Your task to perform on an android device: Open calendar and show me the second week of next month Image 0: 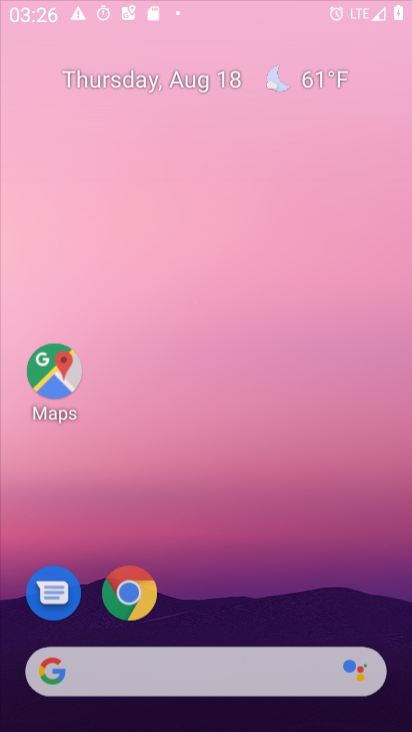
Step 0: press home button
Your task to perform on an android device: Open calendar and show me the second week of next month Image 1: 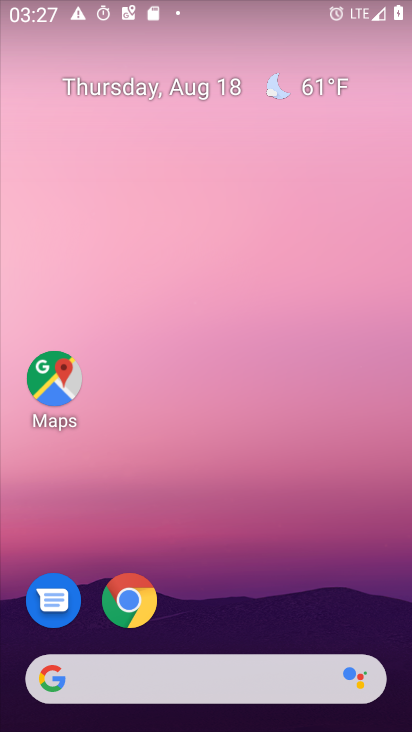
Step 1: drag from (228, 630) to (332, 0)
Your task to perform on an android device: Open calendar and show me the second week of next month Image 2: 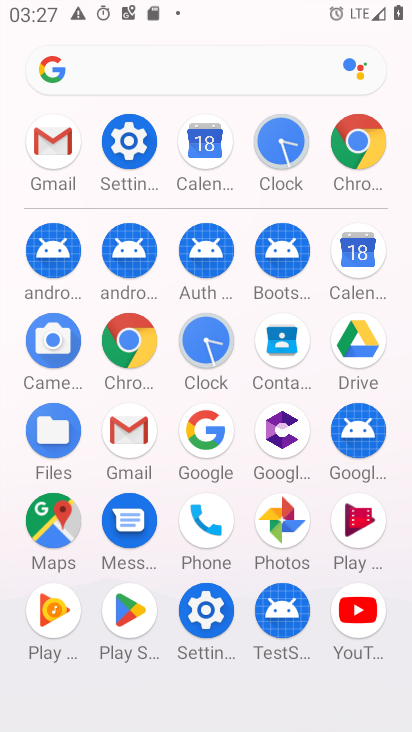
Step 2: click (346, 254)
Your task to perform on an android device: Open calendar and show me the second week of next month Image 3: 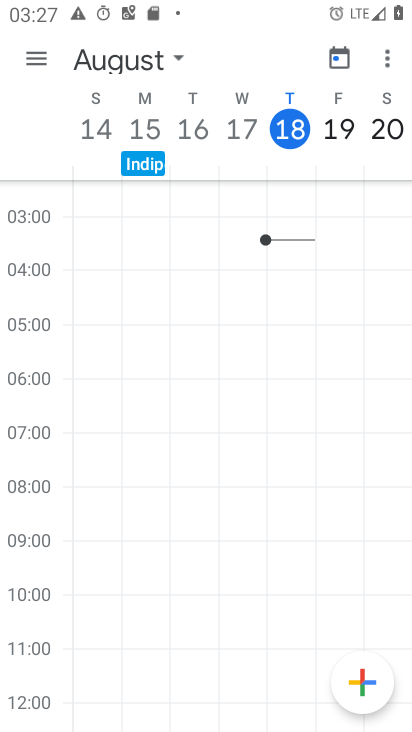
Step 3: click (184, 62)
Your task to perform on an android device: Open calendar and show me the second week of next month Image 4: 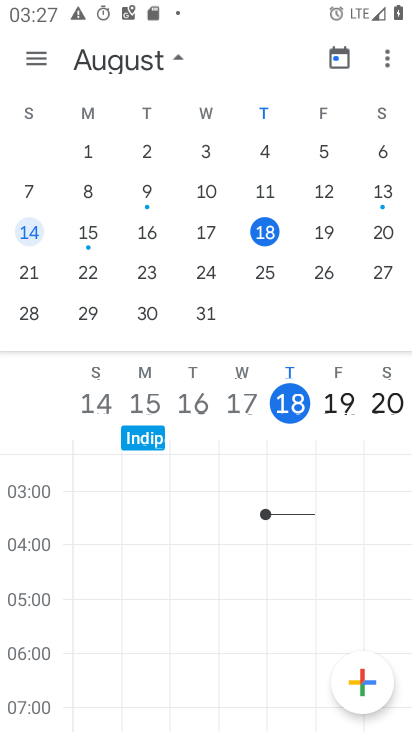
Step 4: drag from (323, 227) to (16, 195)
Your task to perform on an android device: Open calendar and show me the second week of next month Image 5: 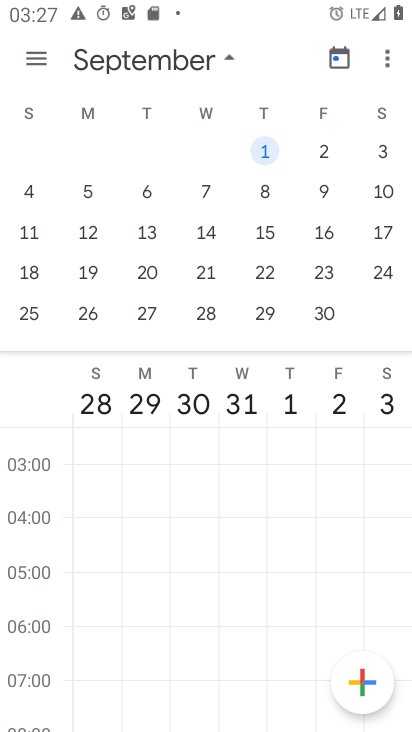
Step 5: click (35, 194)
Your task to perform on an android device: Open calendar and show me the second week of next month Image 6: 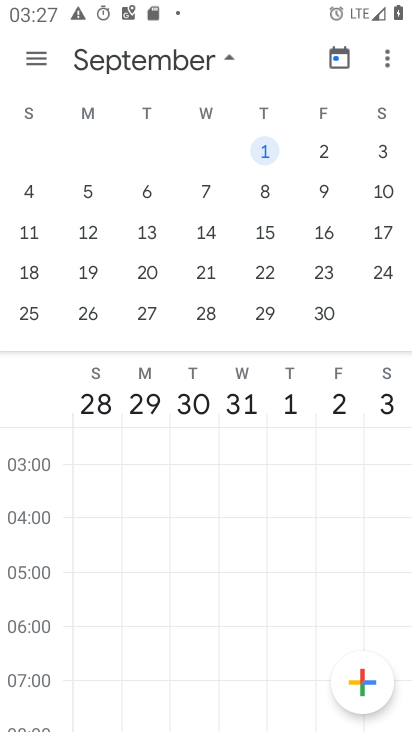
Step 6: click (93, 193)
Your task to perform on an android device: Open calendar and show me the second week of next month Image 7: 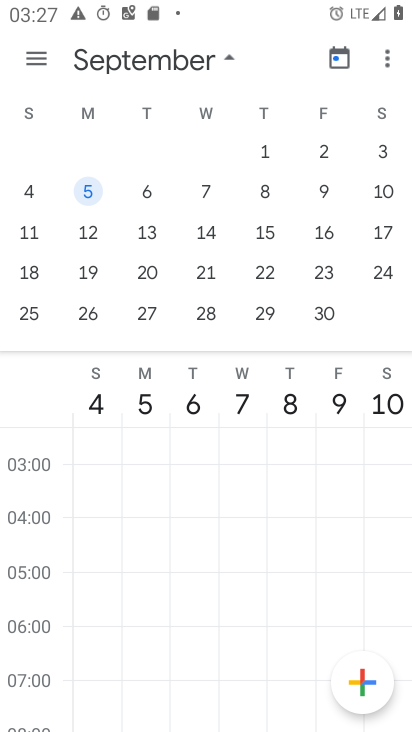
Step 7: click (148, 194)
Your task to perform on an android device: Open calendar and show me the second week of next month Image 8: 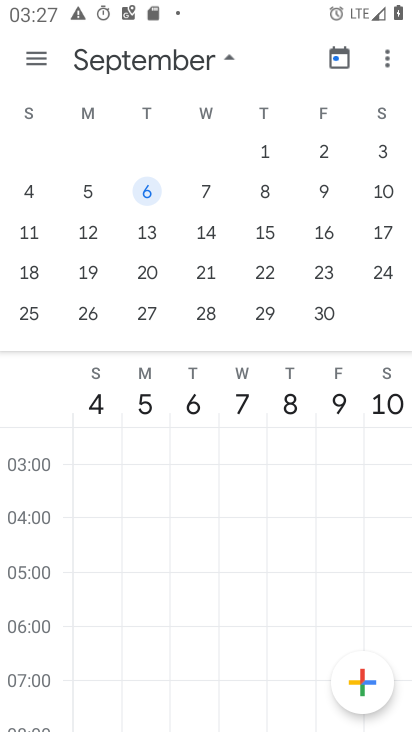
Step 8: click (206, 193)
Your task to perform on an android device: Open calendar and show me the second week of next month Image 9: 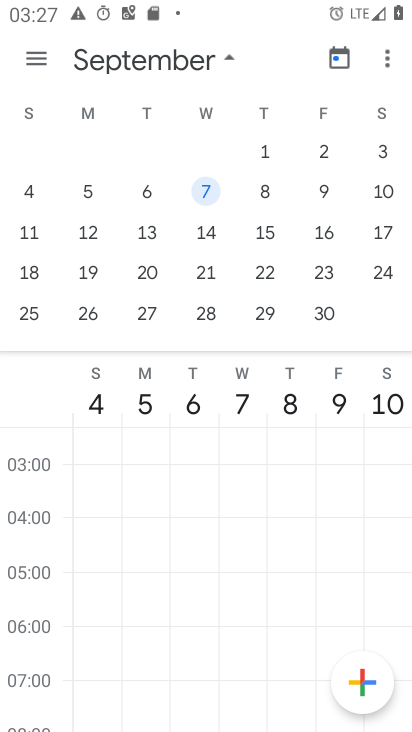
Step 9: click (260, 193)
Your task to perform on an android device: Open calendar and show me the second week of next month Image 10: 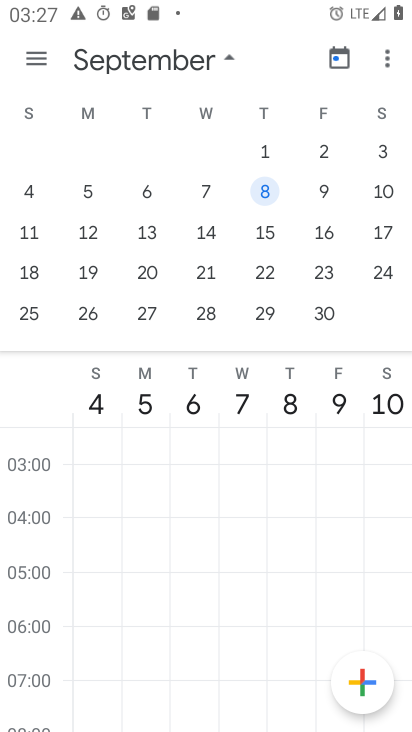
Step 10: click (328, 194)
Your task to perform on an android device: Open calendar and show me the second week of next month Image 11: 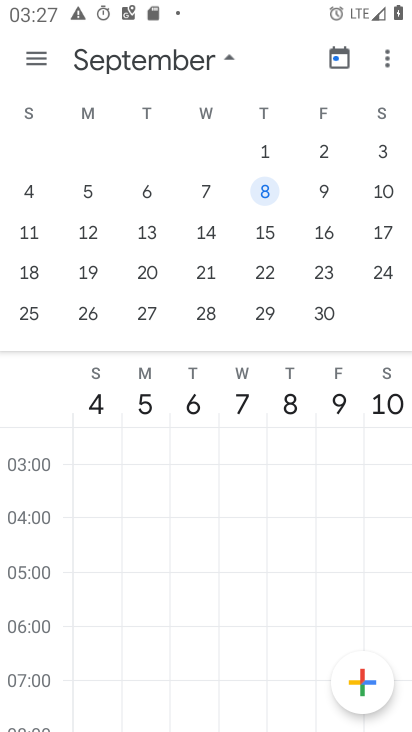
Step 11: click (393, 192)
Your task to perform on an android device: Open calendar and show me the second week of next month Image 12: 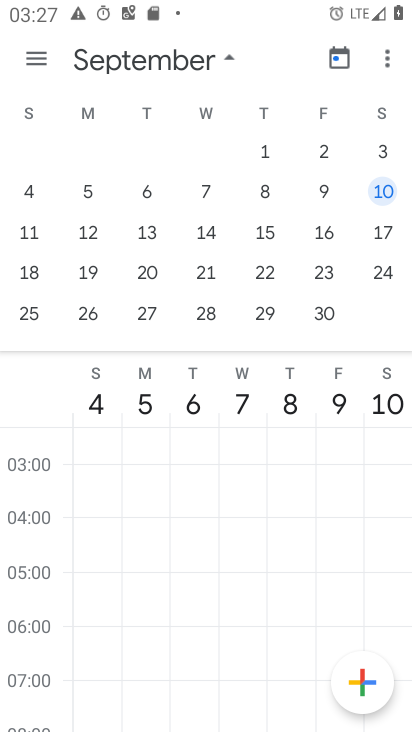
Step 12: task complete